Your task to perform on an android device: Search for Mexican restaurants on Maps Image 0: 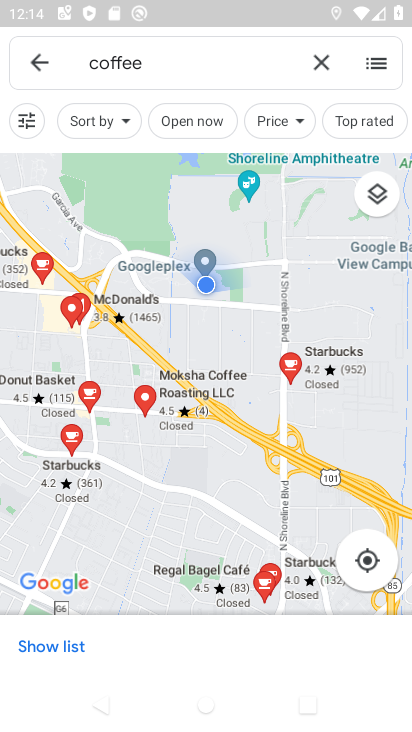
Step 0: click (322, 54)
Your task to perform on an android device: Search for Mexican restaurants on Maps Image 1: 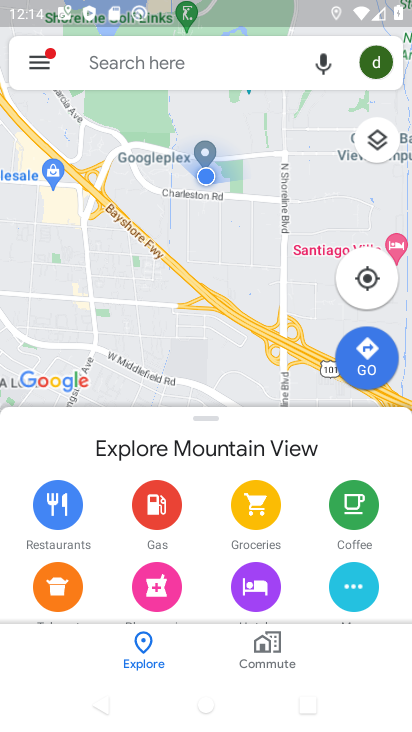
Step 1: click (208, 88)
Your task to perform on an android device: Search for Mexican restaurants on Maps Image 2: 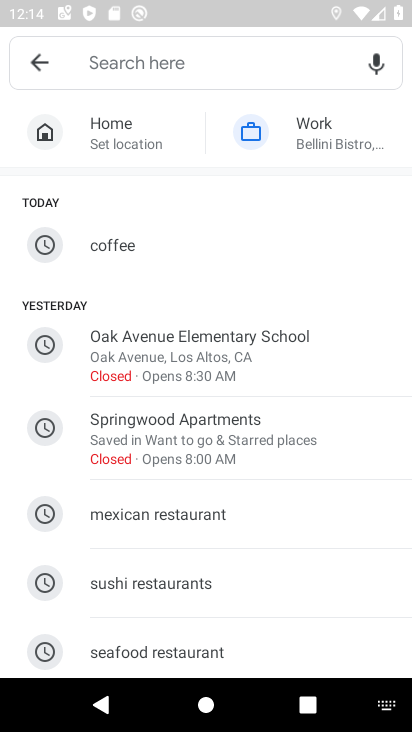
Step 2: click (259, 527)
Your task to perform on an android device: Search for Mexican restaurants on Maps Image 3: 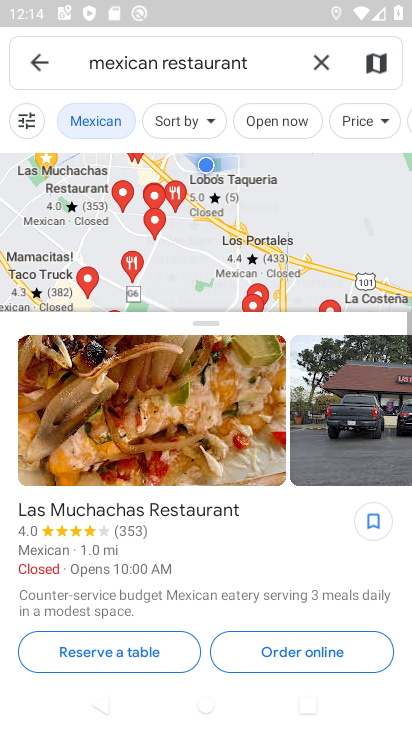
Step 3: task complete